Your task to perform on an android device: turn on data saver in the chrome app Image 0: 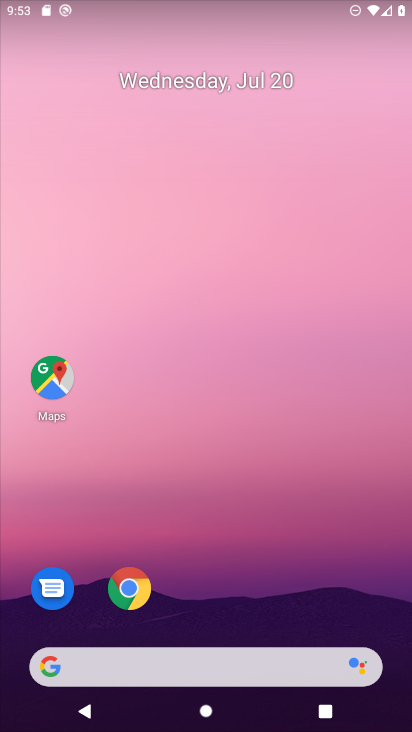
Step 0: click (137, 582)
Your task to perform on an android device: turn on data saver in the chrome app Image 1: 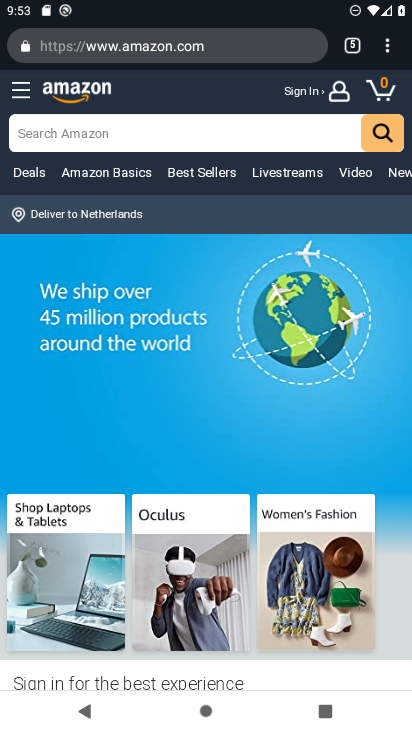
Step 1: click (398, 47)
Your task to perform on an android device: turn on data saver in the chrome app Image 2: 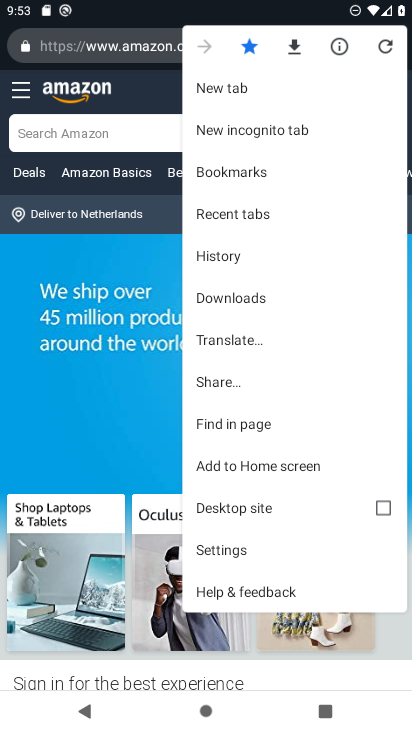
Step 2: click (215, 557)
Your task to perform on an android device: turn on data saver in the chrome app Image 3: 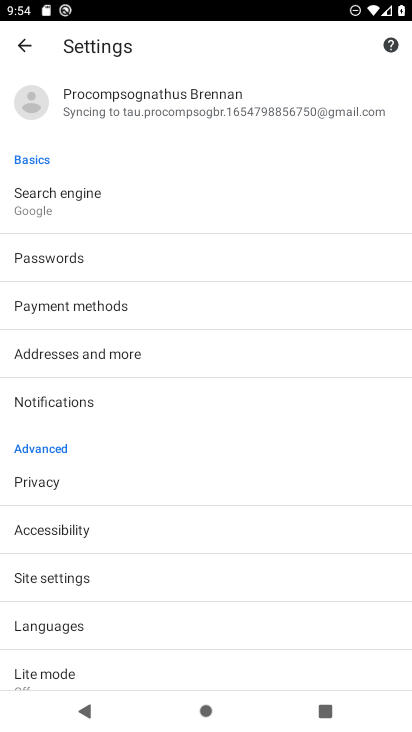
Step 3: click (102, 681)
Your task to perform on an android device: turn on data saver in the chrome app Image 4: 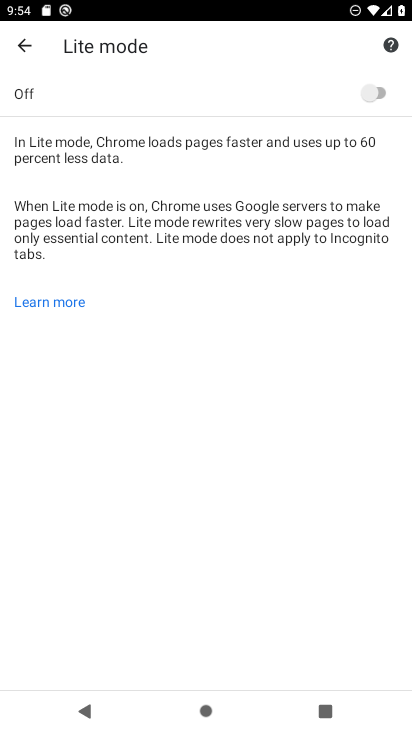
Step 4: click (381, 90)
Your task to perform on an android device: turn on data saver in the chrome app Image 5: 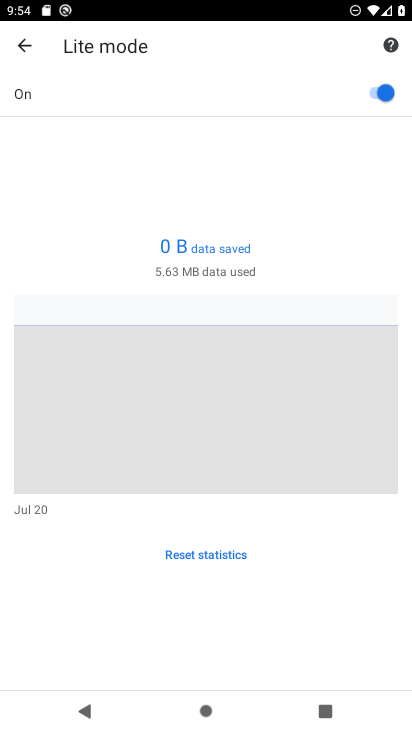
Step 5: task complete